Your task to perform on an android device: Show me popular videos on Youtube Image 0: 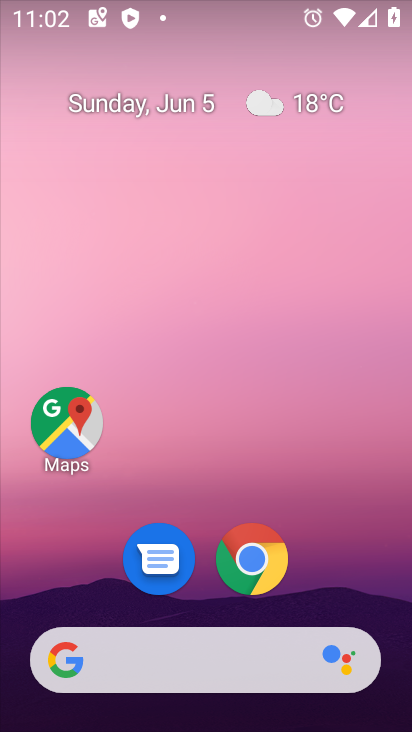
Step 0: drag from (400, 708) to (305, 81)
Your task to perform on an android device: Show me popular videos on Youtube Image 1: 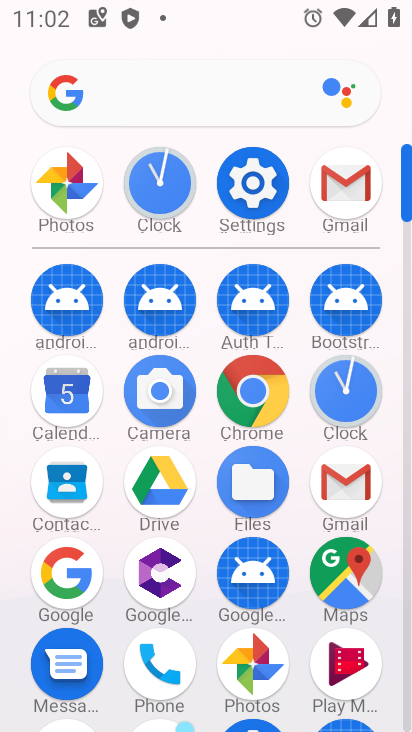
Step 1: drag from (298, 628) to (298, 233)
Your task to perform on an android device: Show me popular videos on Youtube Image 2: 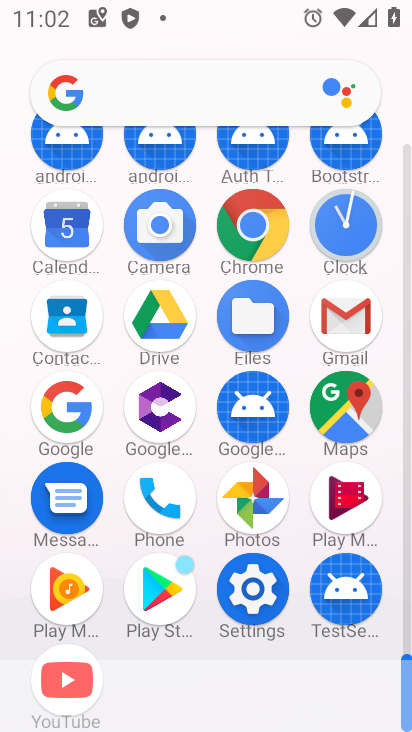
Step 2: click (62, 662)
Your task to perform on an android device: Show me popular videos on Youtube Image 3: 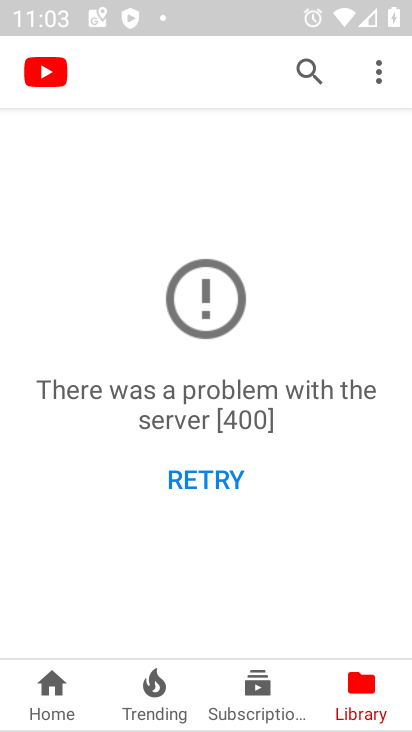
Step 3: task complete